Your task to perform on an android device: toggle priority inbox in the gmail app Image 0: 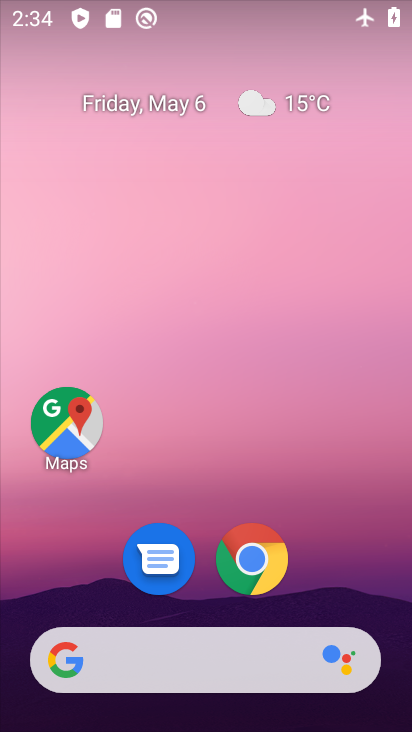
Step 0: drag from (338, 580) to (270, 191)
Your task to perform on an android device: toggle priority inbox in the gmail app Image 1: 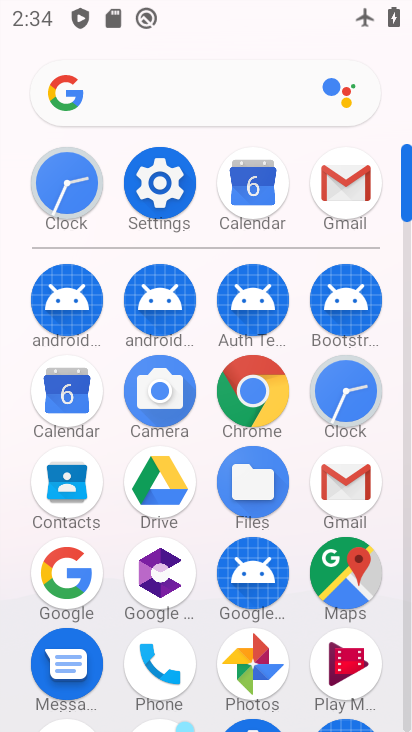
Step 1: click (329, 476)
Your task to perform on an android device: toggle priority inbox in the gmail app Image 2: 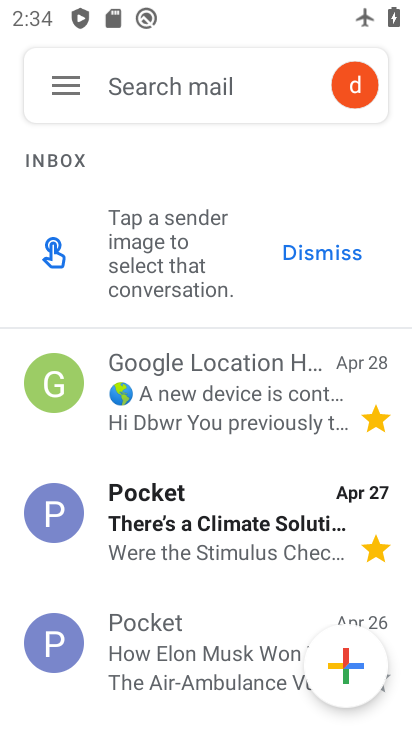
Step 2: click (57, 76)
Your task to perform on an android device: toggle priority inbox in the gmail app Image 3: 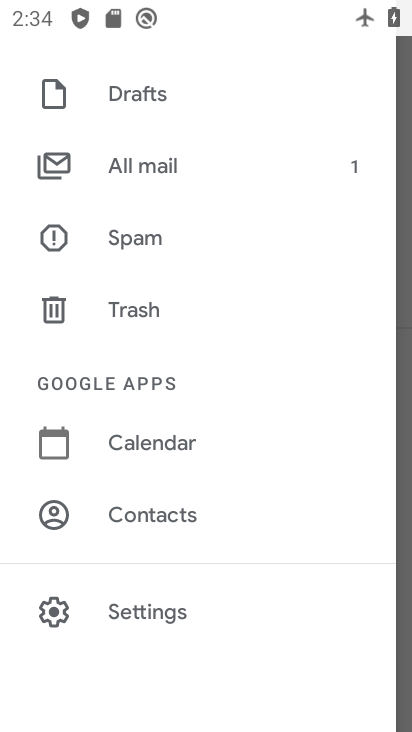
Step 3: click (131, 613)
Your task to perform on an android device: toggle priority inbox in the gmail app Image 4: 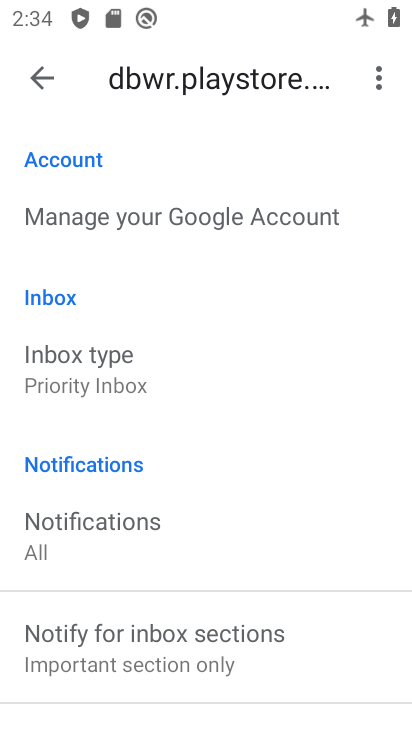
Step 4: click (155, 348)
Your task to perform on an android device: toggle priority inbox in the gmail app Image 5: 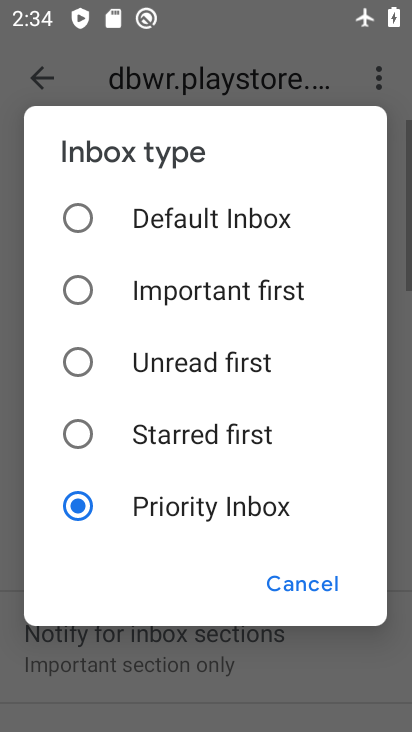
Step 5: task complete